Your task to perform on an android device: Open Youtube and go to "Your channel" Image 0: 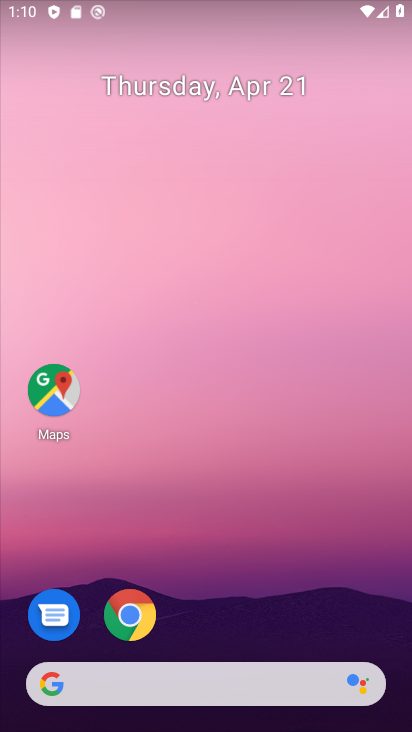
Step 0: drag from (209, 653) to (209, 202)
Your task to perform on an android device: Open Youtube and go to "Your channel" Image 1: 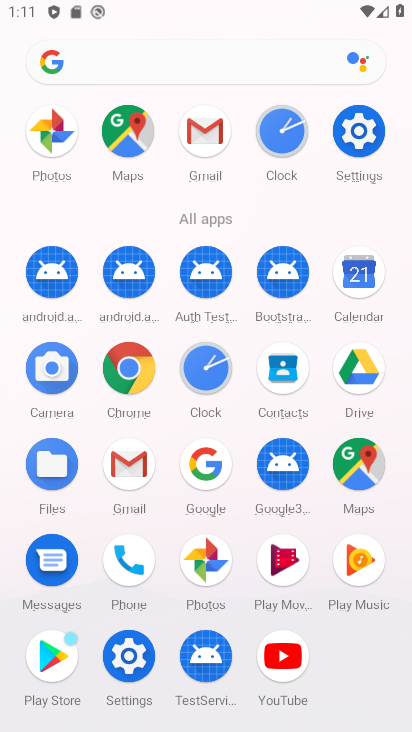
Step 1: click (284, 659)
Your task to perform on an android device: Open Youtube and go to "Your channel" Image 2: 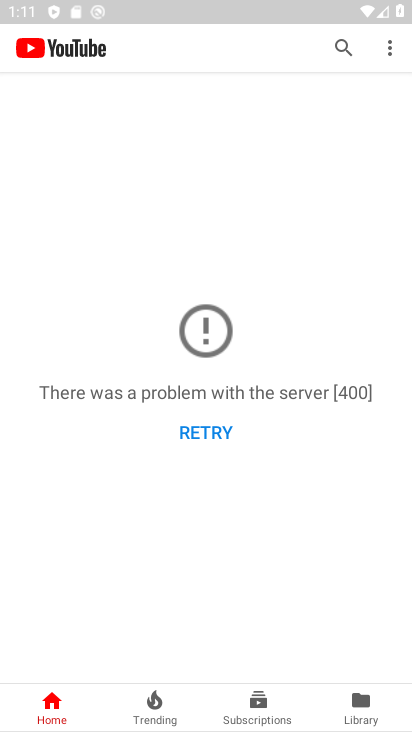
Step 2: task complete